Your task to perform on an android device: See recent photos Image 0: 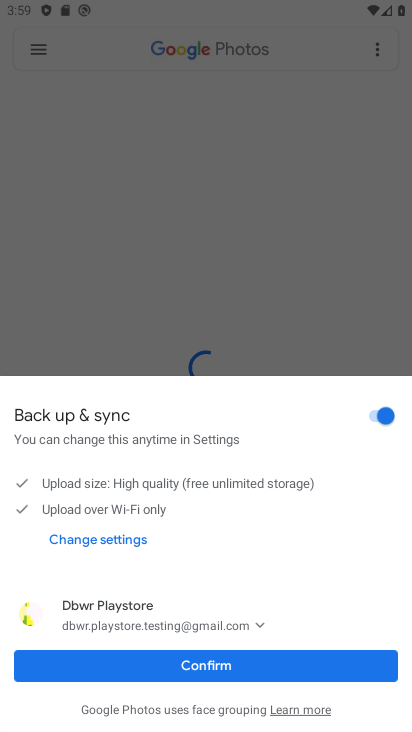
Step 0: click (204, 666)
Your task to perform on an android device: See recent photos Image 1: 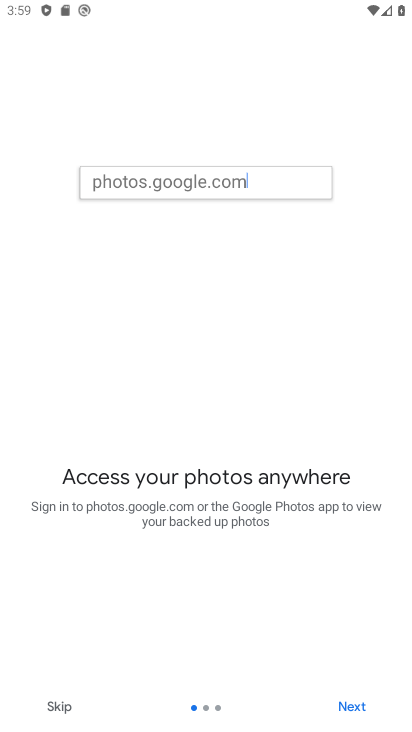
Step 1: click (352, 699)
Your task to perform on an android device: See recent photos Image 2: 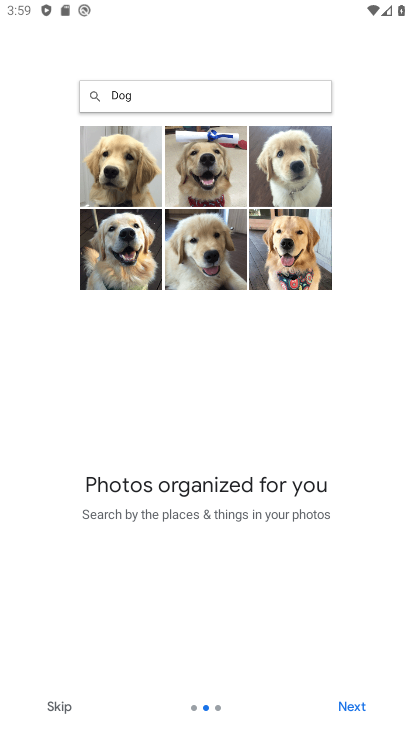
Step 2: click (352, 699)
Your task to perform on an android device: See recent photos Image 3: 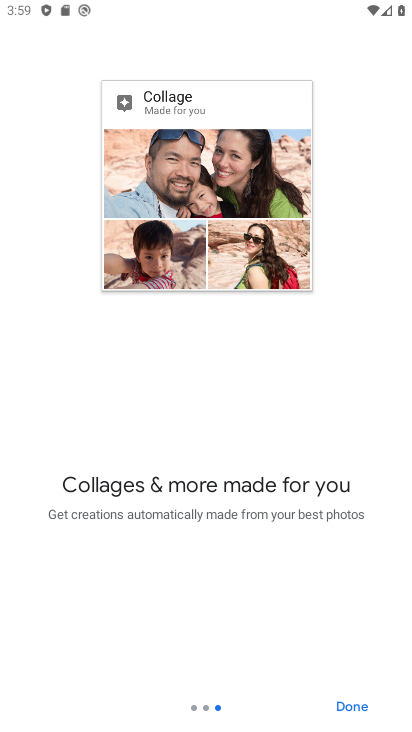
Step 3: click (352, 699)
Your task to perform on an android device: See recent photos Image 4: 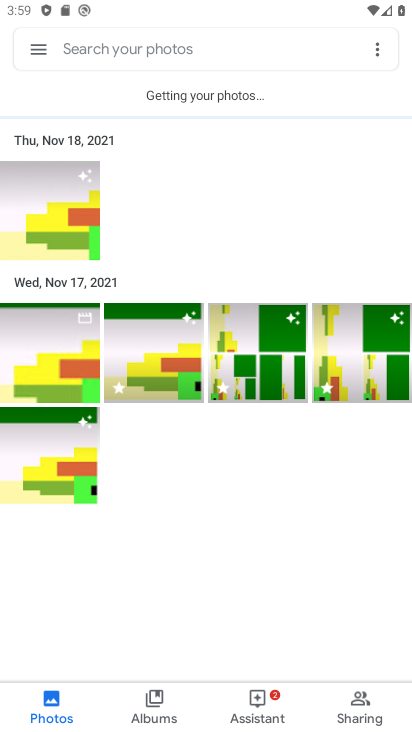
Step 4: click (56, 215)
Your task to perform on an android device: See recent photos Image 5: 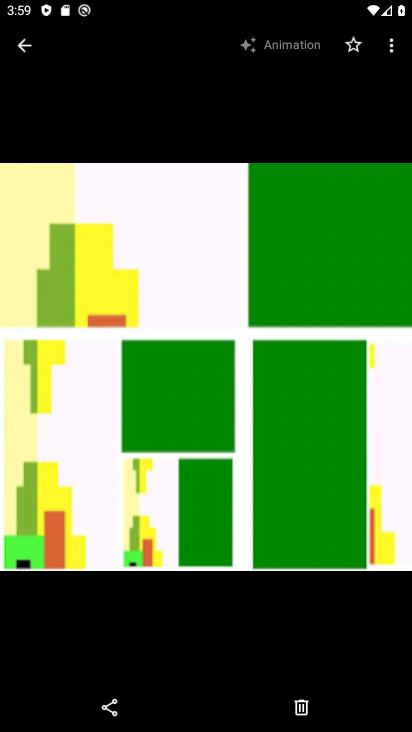
Step 5: task complete